Your task to perform on an android device: check the backup settings in the google photos Image 0: 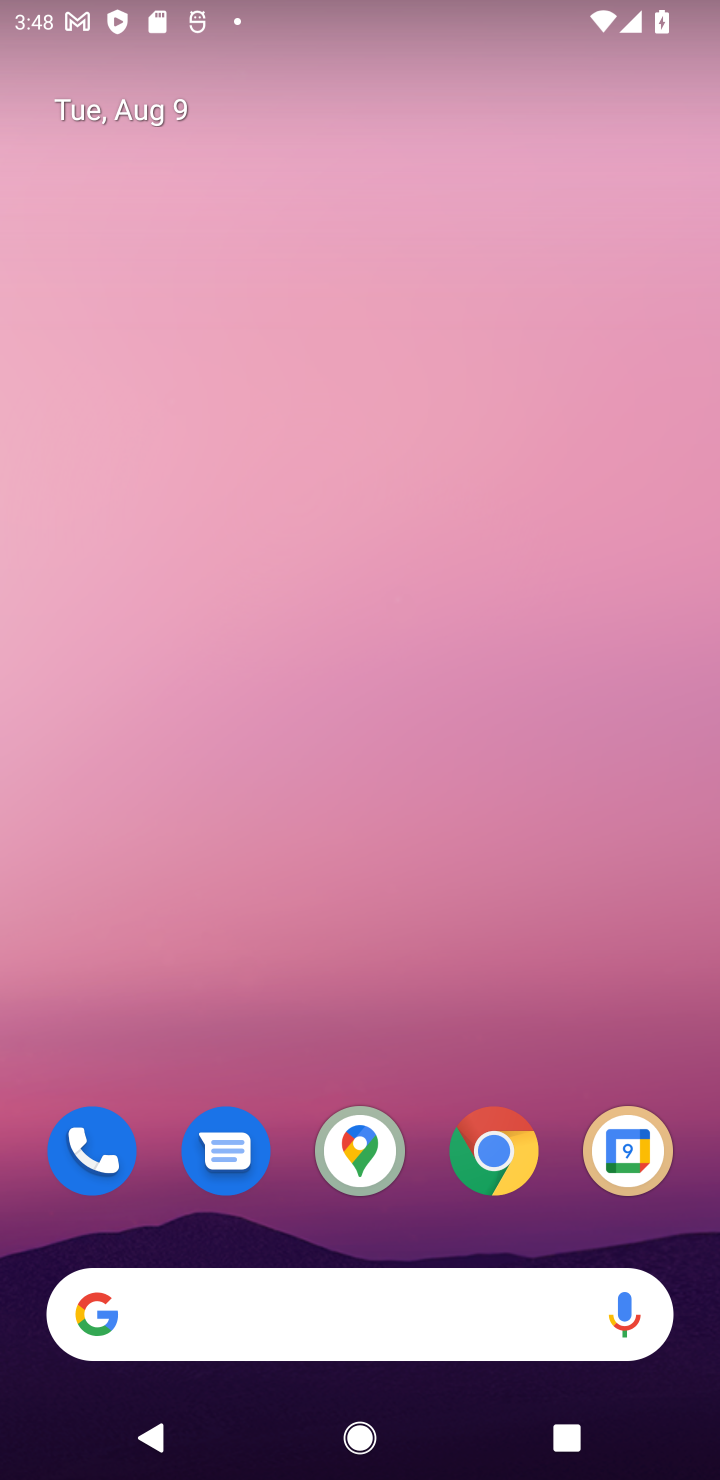
Step 0: drag from (354, 680) to (672, 0)
Your task to perform on an android device: check the backup settings in the google photos Image 1: 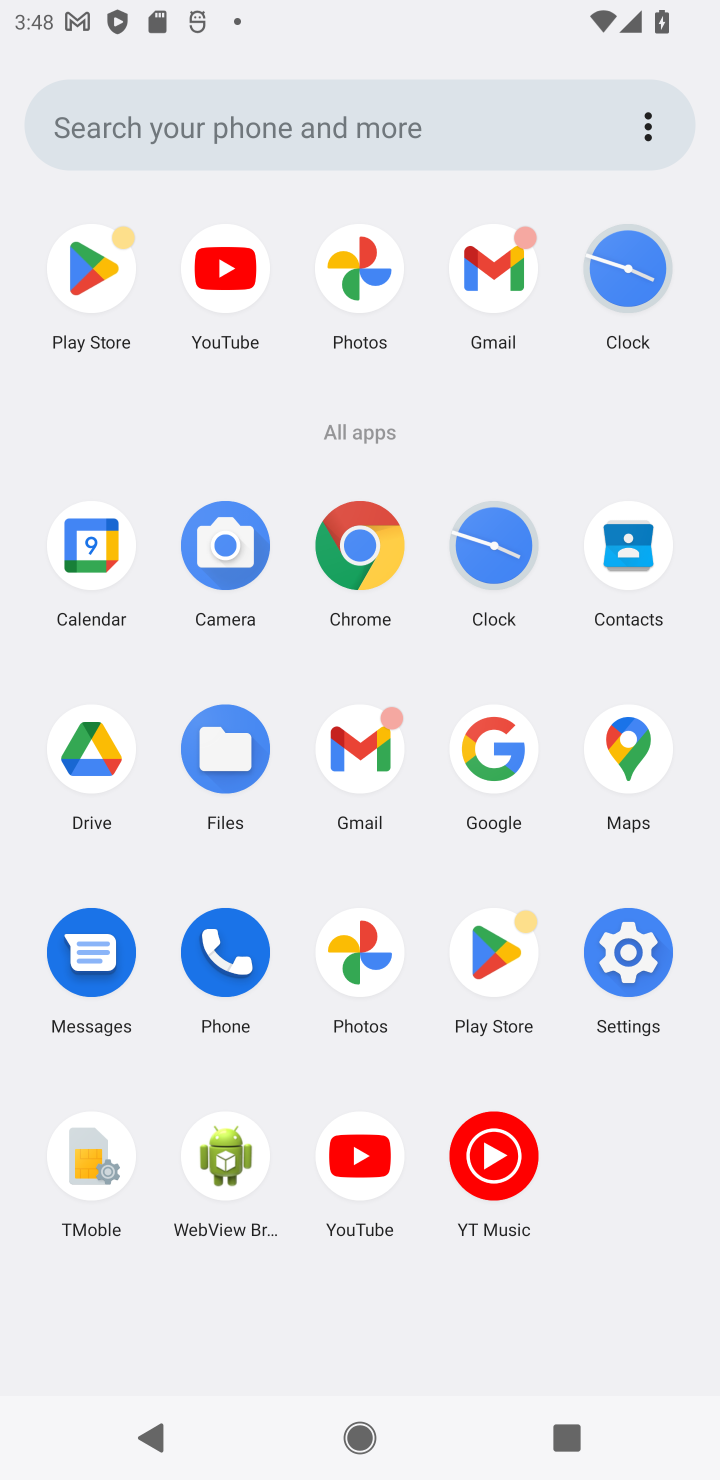
Step 1: click (368, 971)
Your task to perform on an android device: check the backup settings in the google photos Image 2: 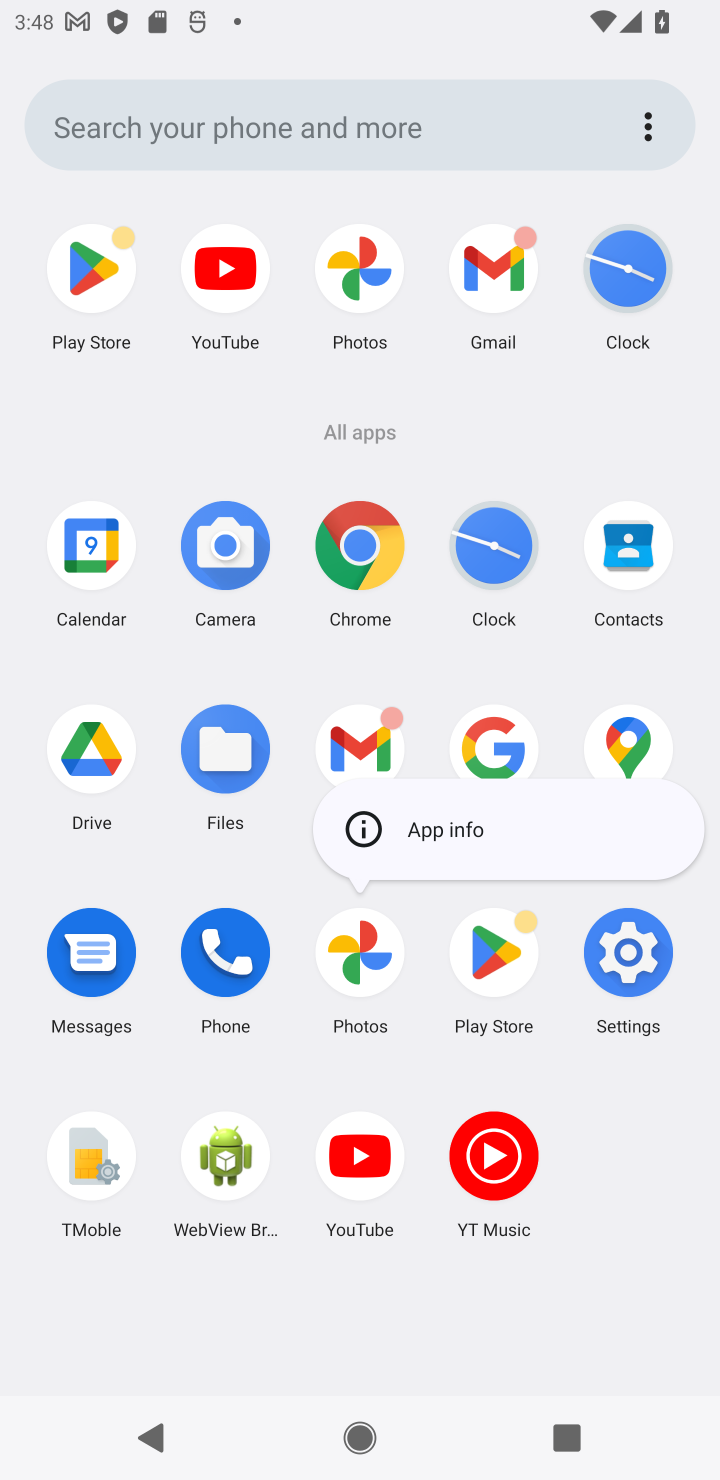
Step 2: click (368, 971)
Your task to perform on an android device: check the backup settings in the google photos Image 3: 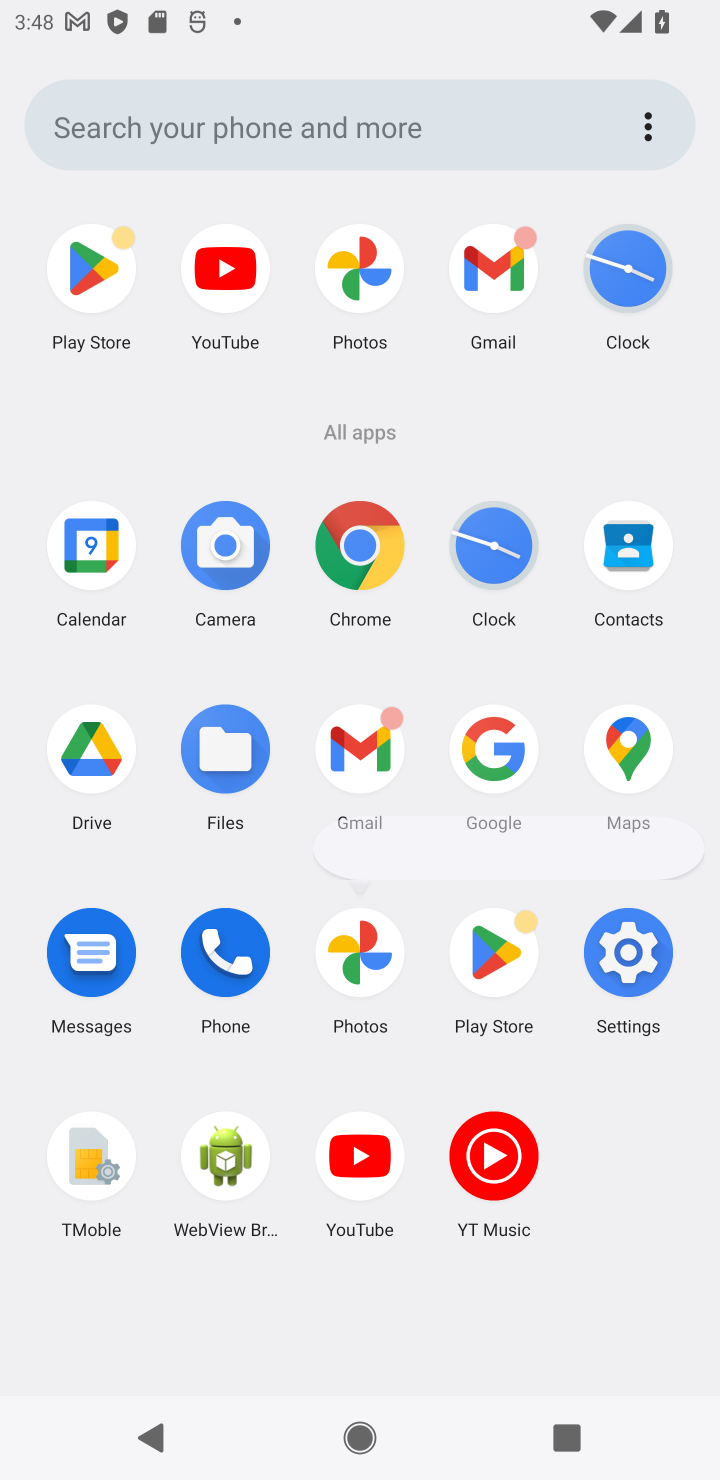
Step 3: click (368, 971)
Your task to perform on an android device: check the backup settings in the google photos Image 4: 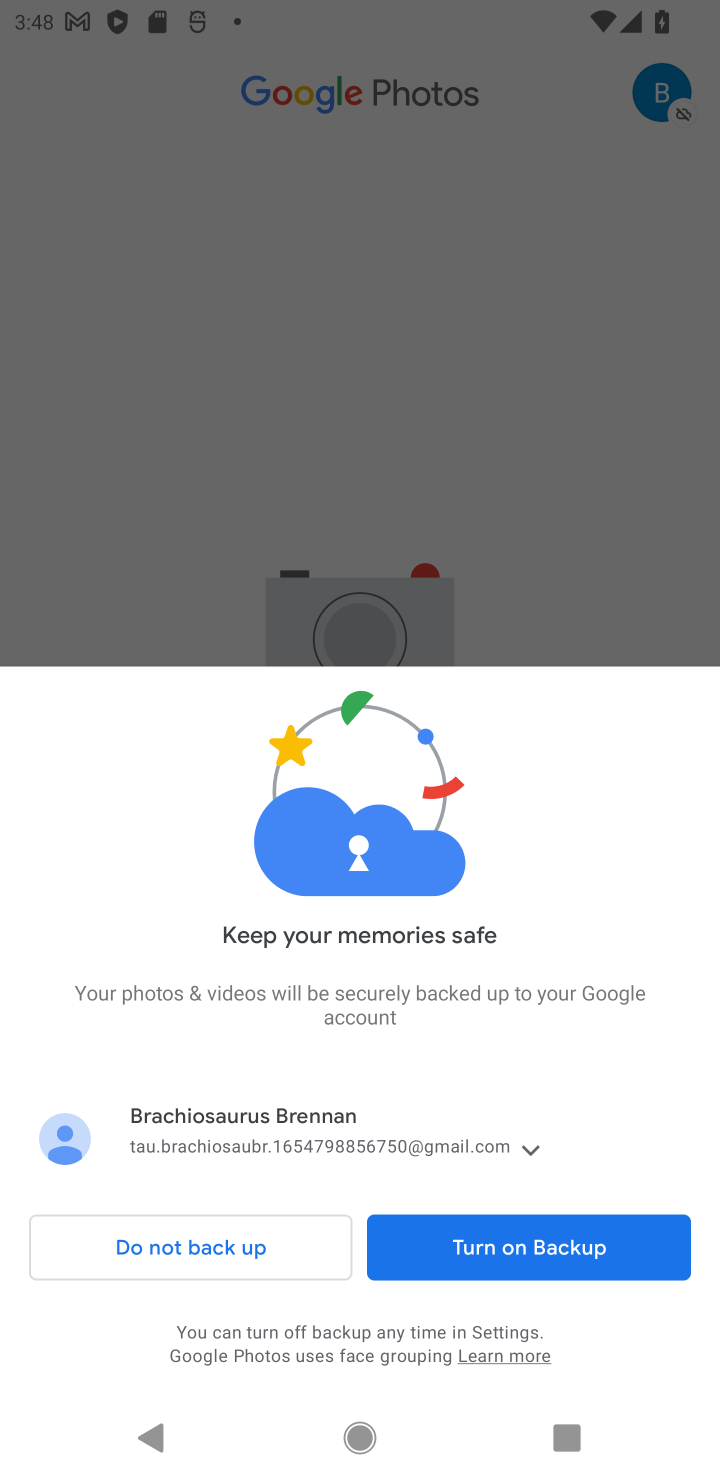
Step 4: click (486, 1240)
Your task to perform on an android device: check the backup settings in the google photos Image 5: 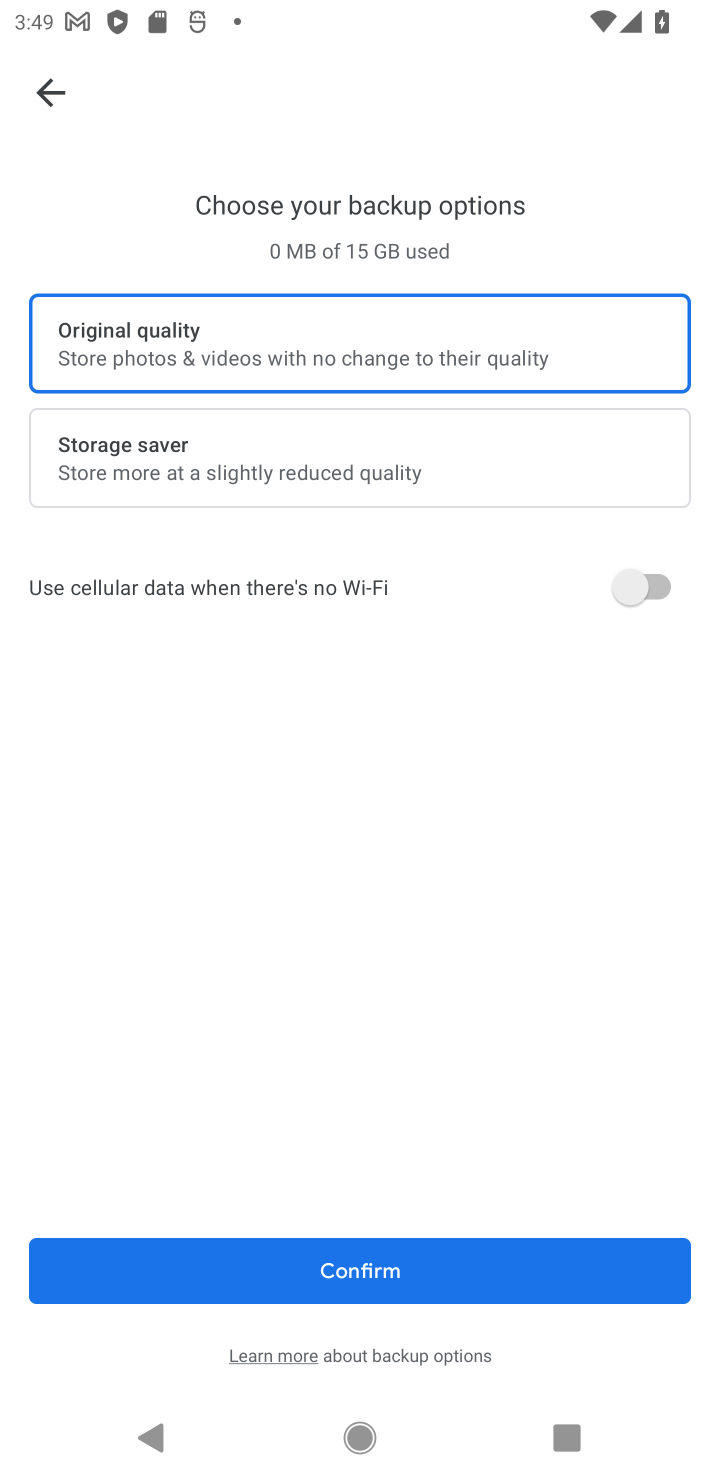
Step 5: click (383, 1278)
Your task to perform on an android device: check the backup settings in the google photos Image 6: 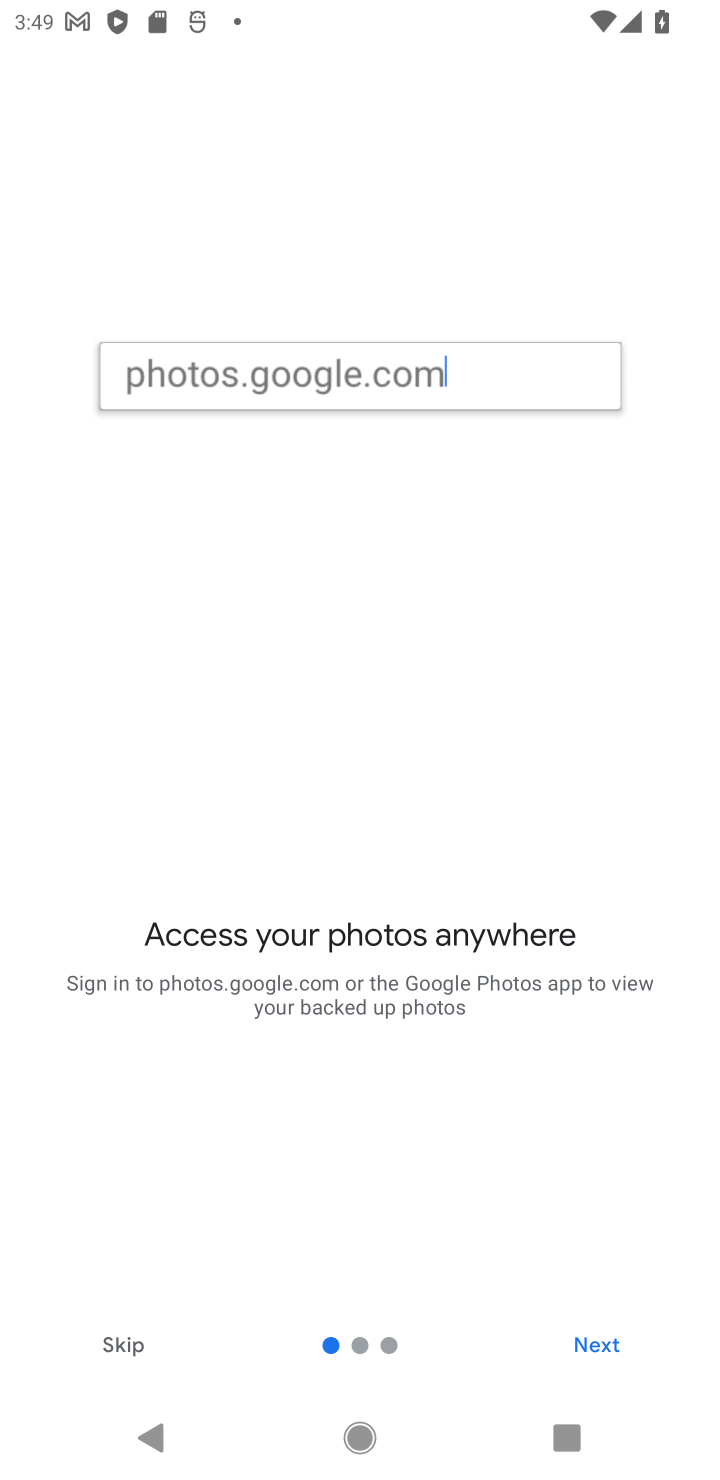
Step 6: click (595, 1352)
Your task to perform on an android device: check the backup settings in the google photos Image 7: 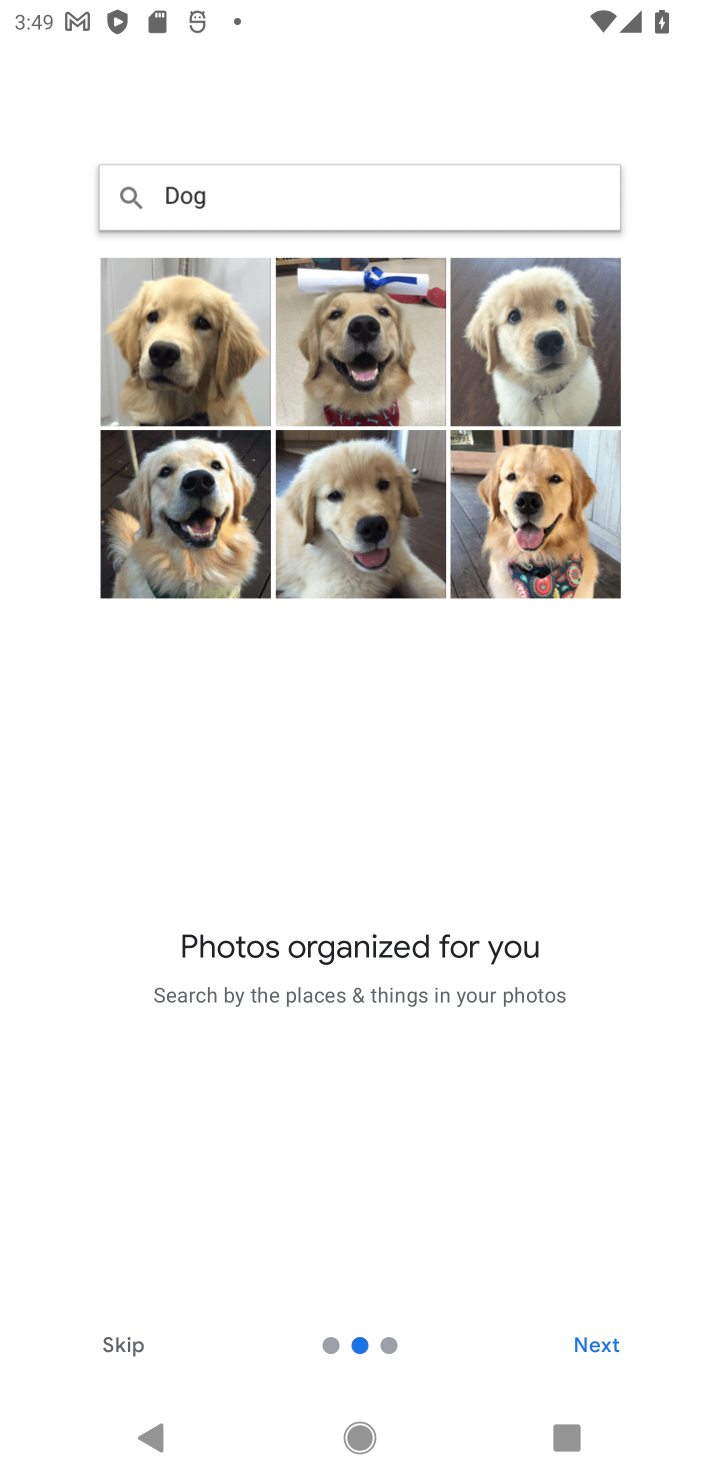
Step 7: click (595, 1352)
Your task to perform on an android device: check the backup settings in the google photos Image 8: 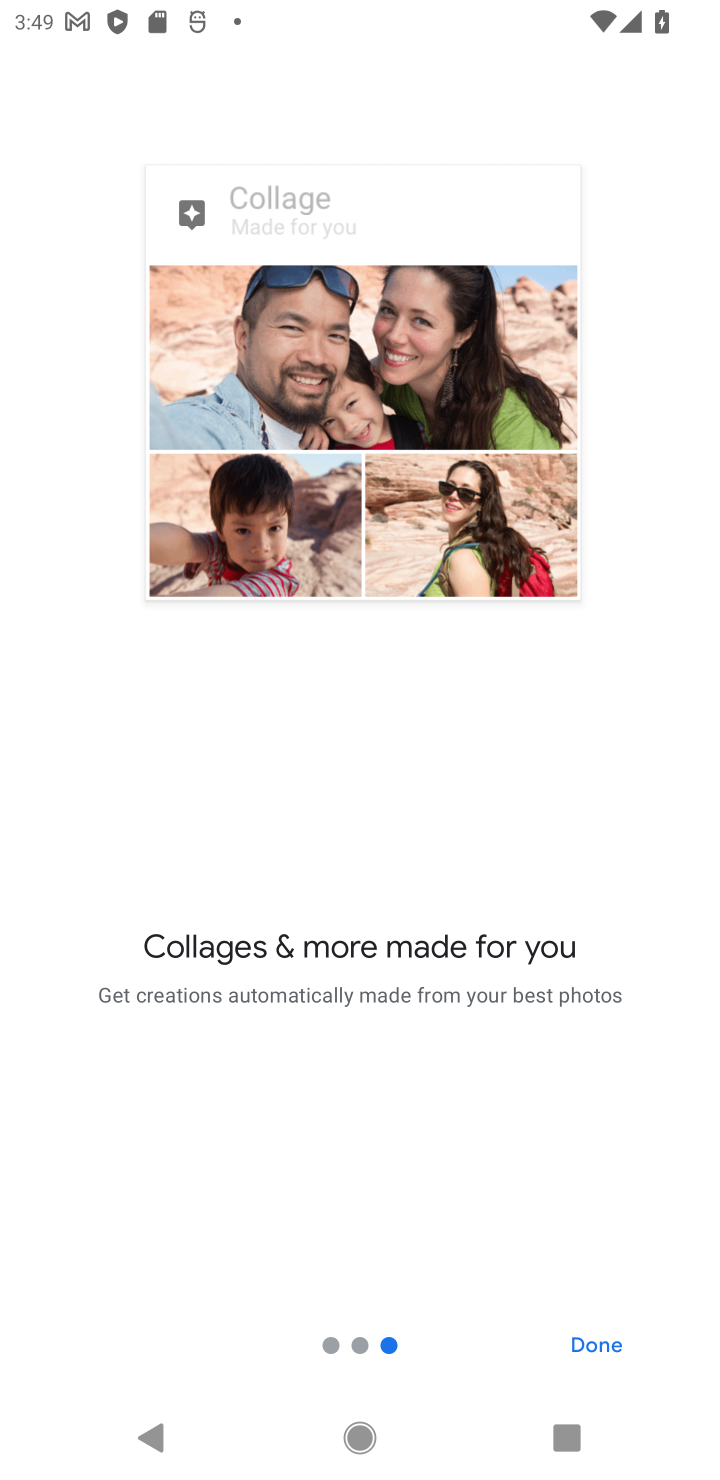
Step 8: click (595, 1352)
Your task to perform on an android device: check the backup settings in the google photos Image 9: 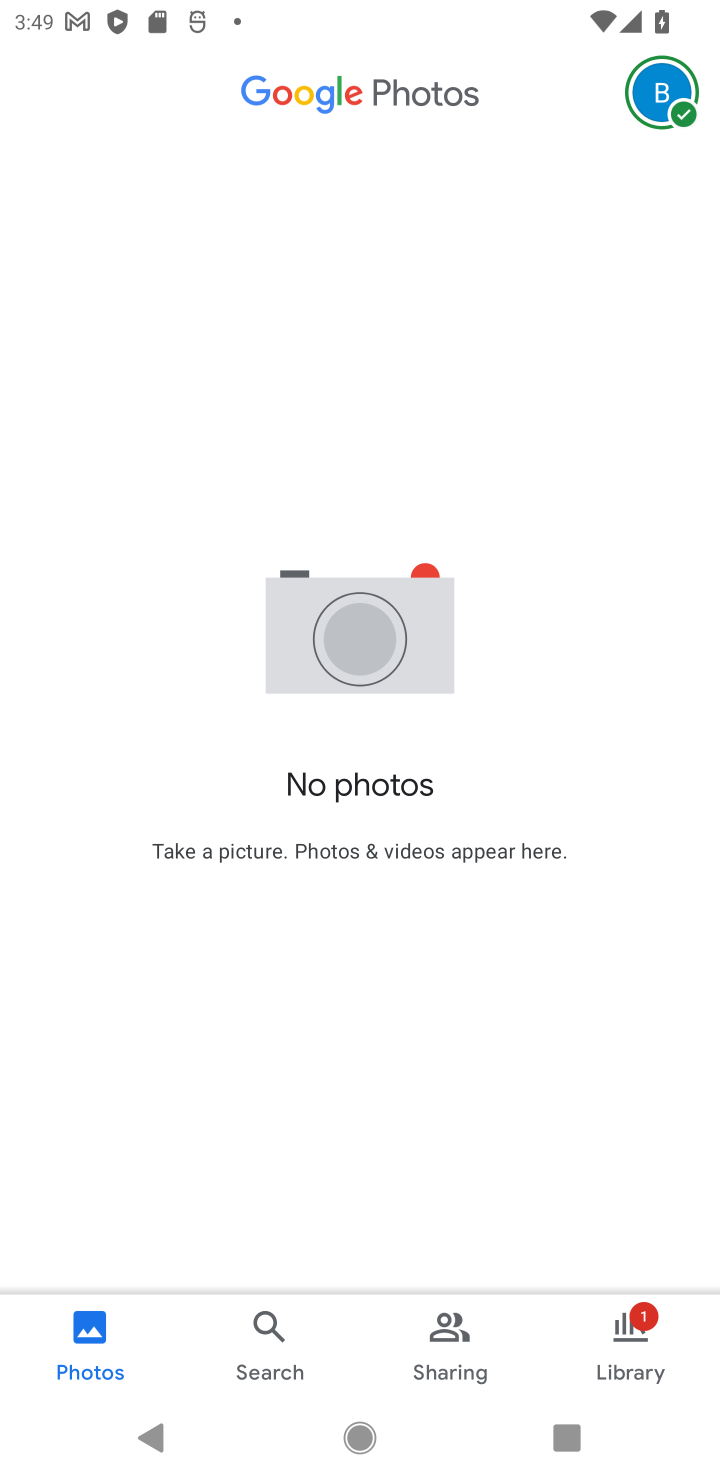
Step 9: click (663, 90)
Your task to perform on an android device: check the backup settings in the google photos Image 10: 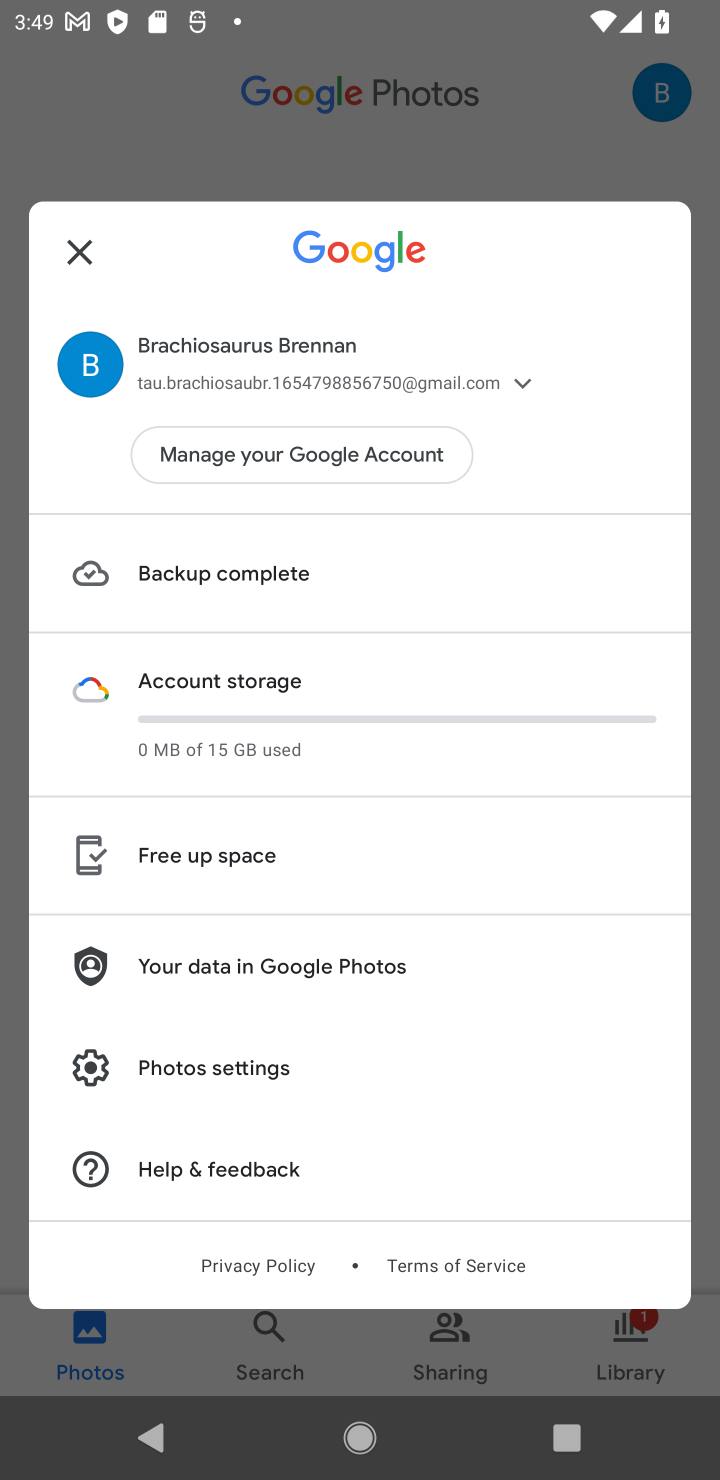
Step 10: click (208, 1076)
Your task to perform on an android device: check the backup settings in the google photos Image 11: 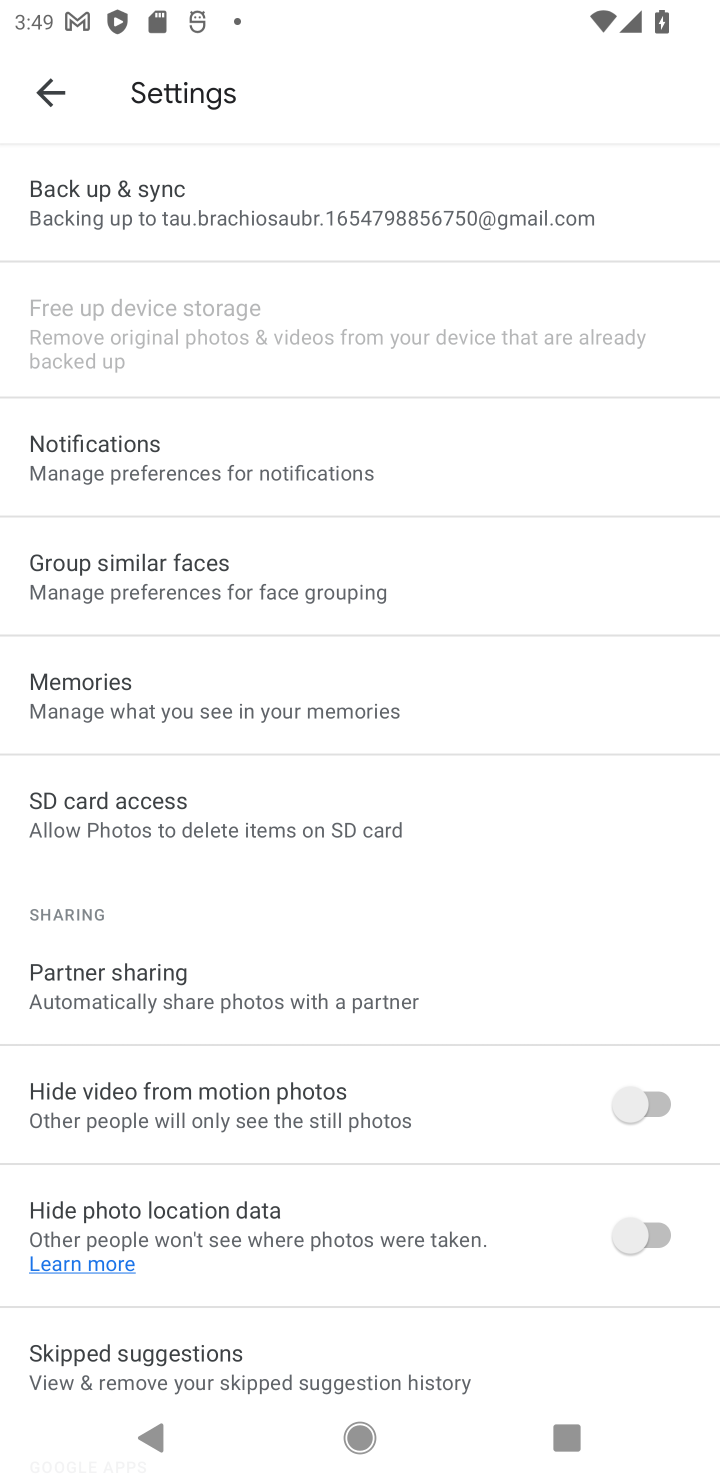
Step 11: click (466, 191)
Your task to perform on an android device: check the backup settings in the google photos Image 12: 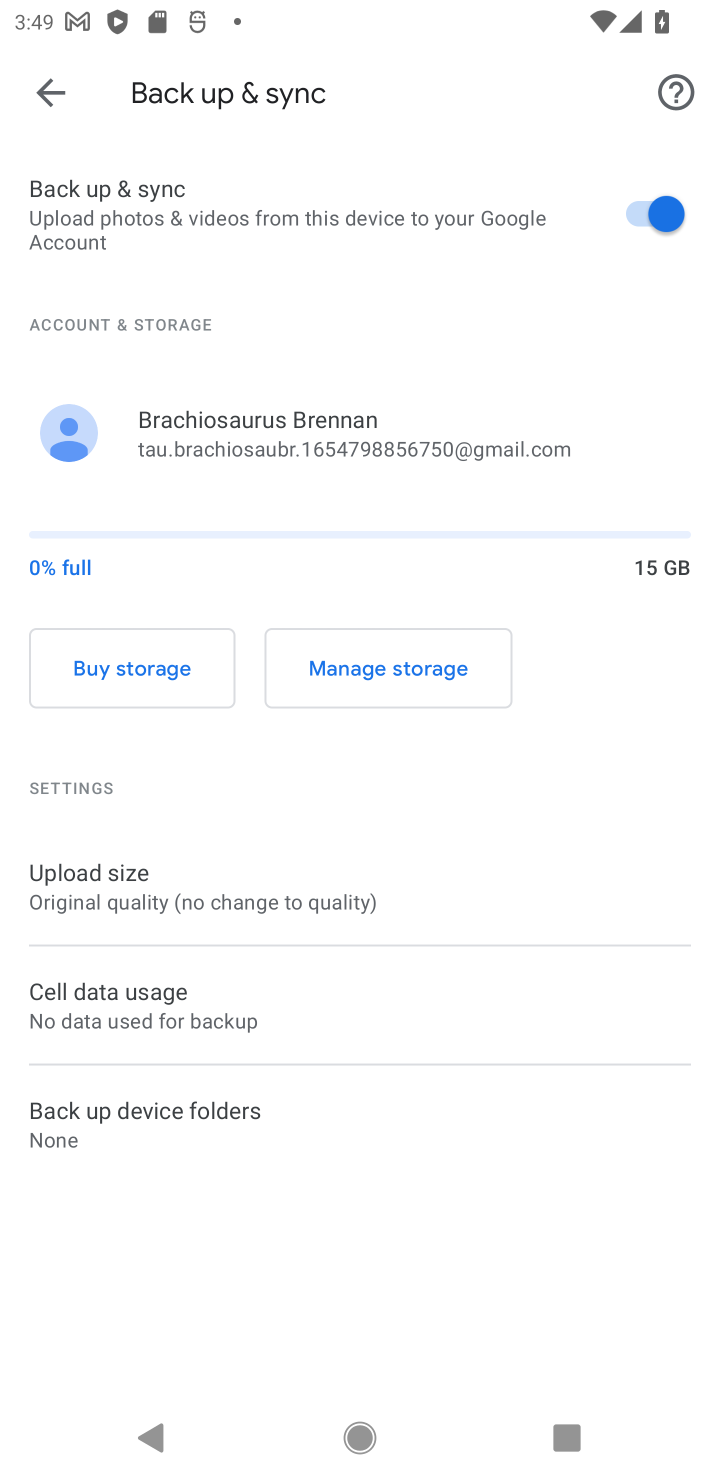
Step 12: task complete